Your task to perform on an android device: Go to Amazon Image 0: 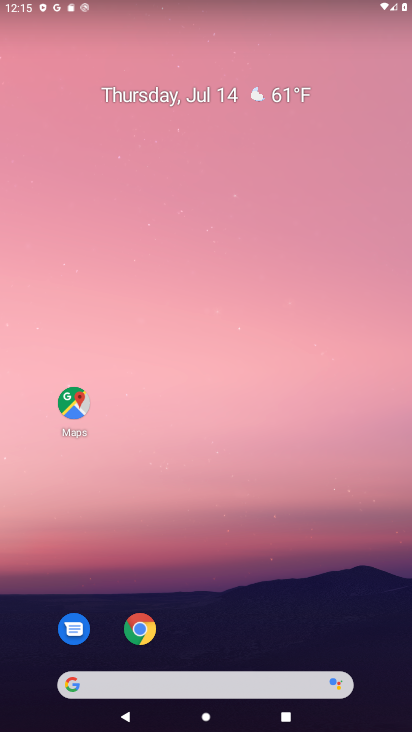
Step 0: click (143, 632)
Your task to perform on an android device: Go to Amazon Image 1: 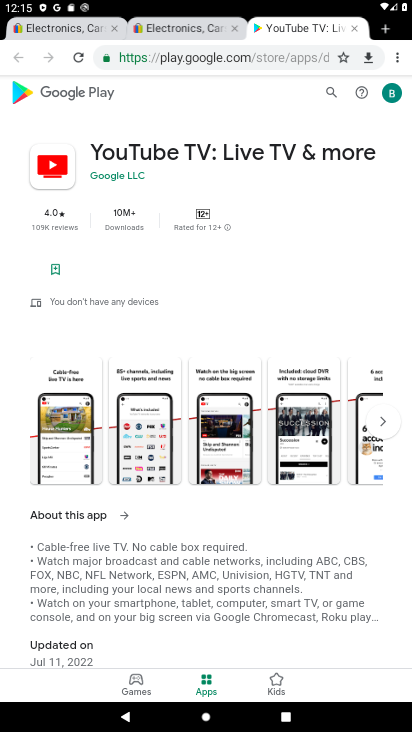
Step 1: click (380, 30)
Your task to perform on an android device: Go to Amazon Image 2: 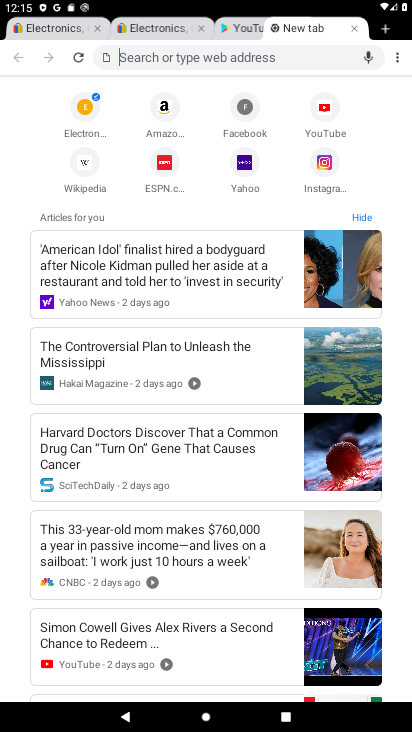
Step 2: click (157, 103)
Your task to perform on an android device: Go to Amazon Image 3: 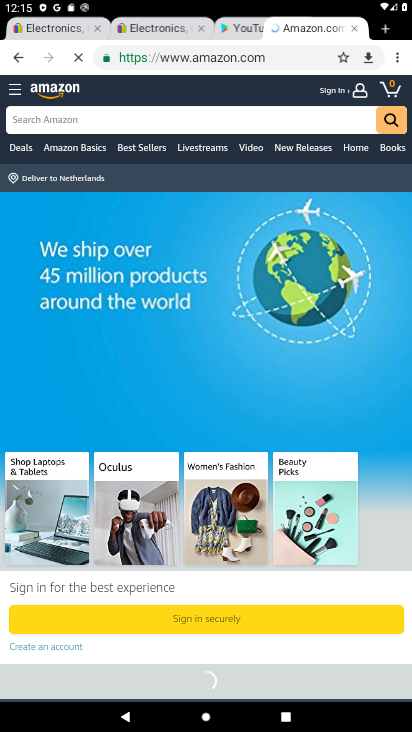
Step 3: task complete